Your task to perform on an android device: check battery use Image 0: 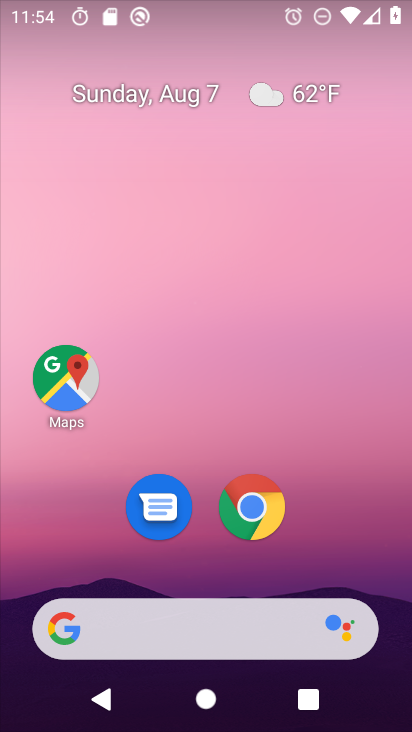
Step 0: drag from (410, 557) to (378, 0)
Your task to perform on an android device: check battery use Image 1: 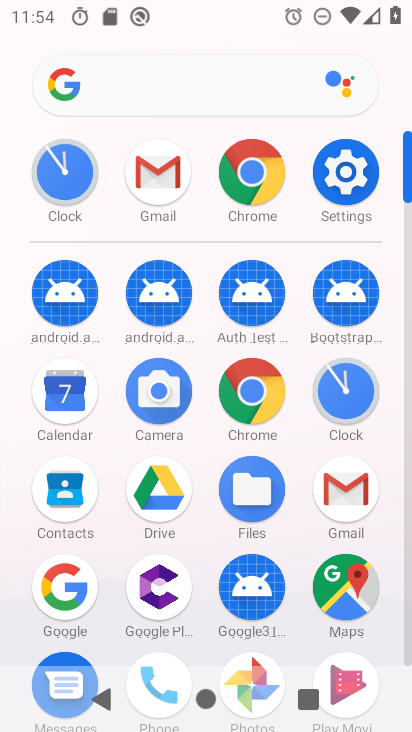
Step 1: click (340, 180)
Your task to perform on an android device: check battery use Image 2: 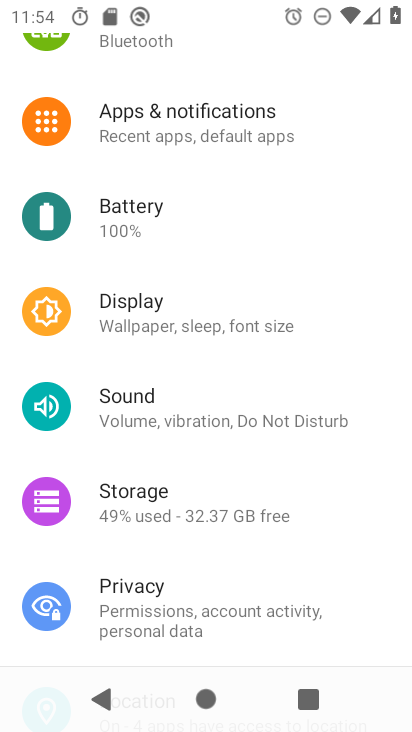
Step 2: click (107, 213)
Your task to perform on an android device: check battery use Image 3: 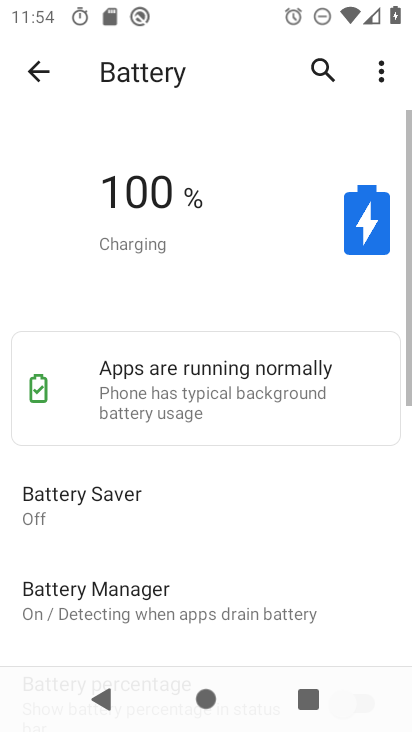
Step 3: click (391, 82)
Your task to perform on an android device: check battery use Image 4: 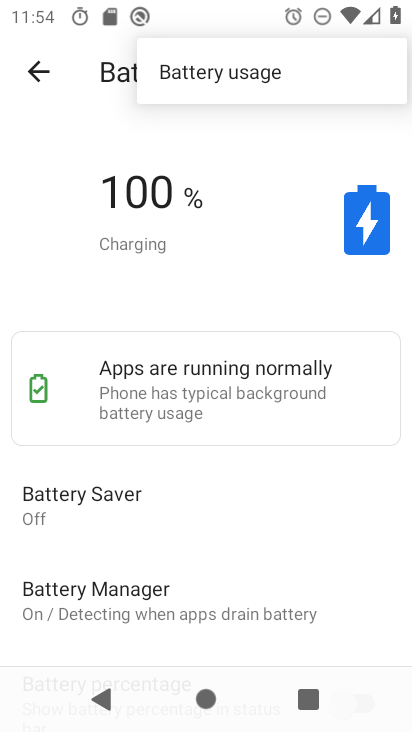
Step 4: click (262, 69)
Your task to perform on an android device: check battery use Image 5: 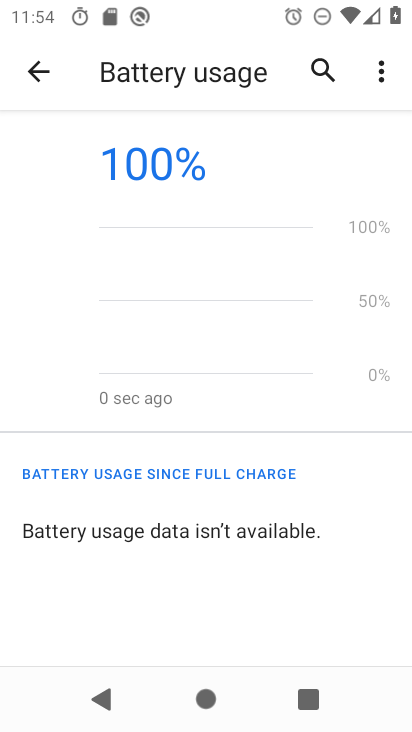
Step 5: task complete